Your task to perform on an android device: What's the weather today? Image 0: 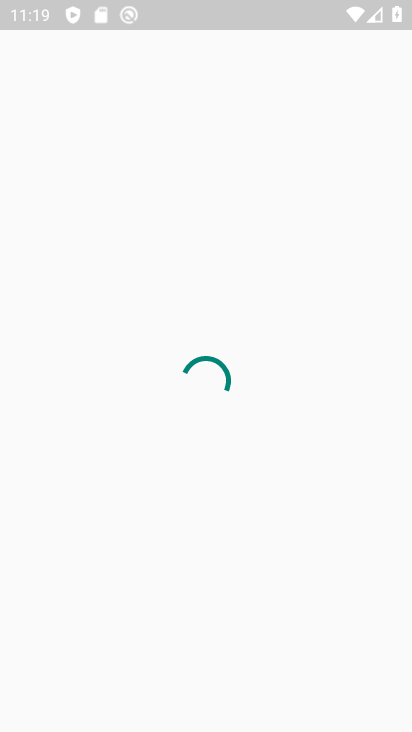
Step 0: press home button
Your task to perform on an android device: What's the weather today? Image 1: 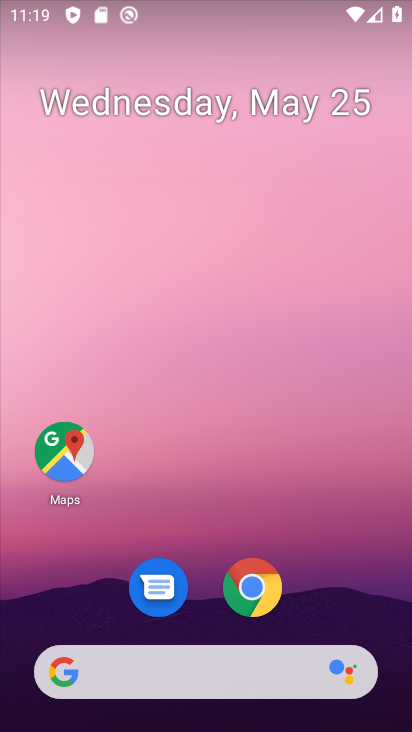
Step 1: click (237, 682)
Your task to perform on an android device: What's the weather today? Image 2: 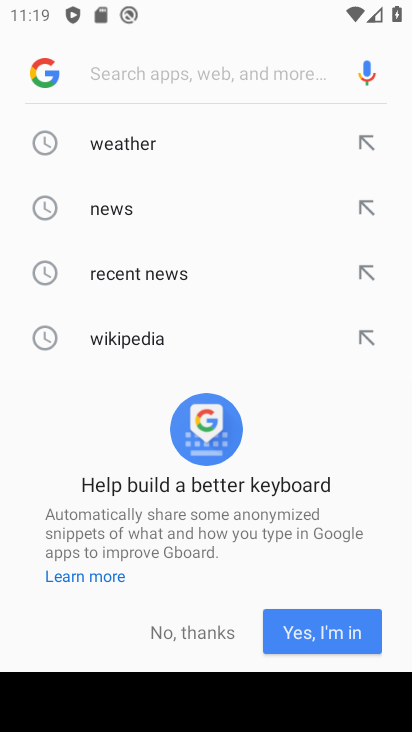
Step 2: click (192, 629)
Your task to perform on an android device: What's the weather today? Image 3: 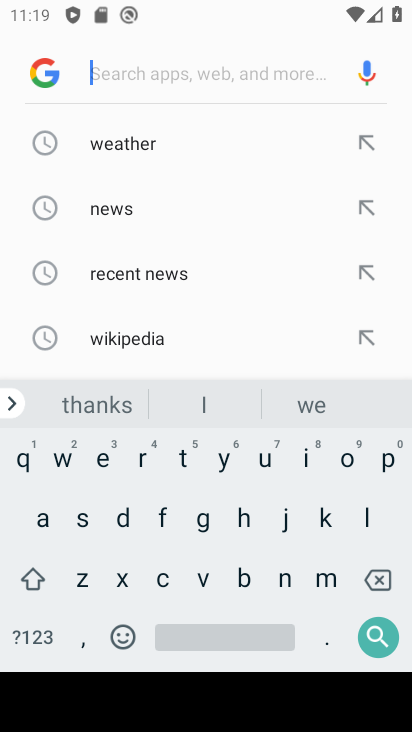
Step 3: click (99, 145)
Your task to perform on an android device: What's the weather today? Image 4: 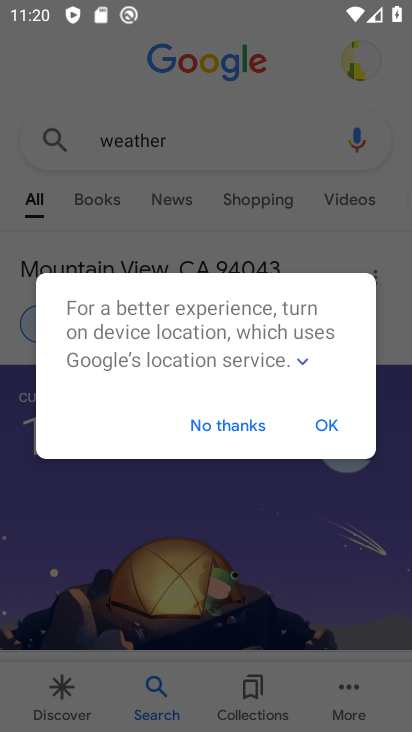
Step 4: click (324, 424)
Your task to perform on an android device: What's the weather today? Image 5: 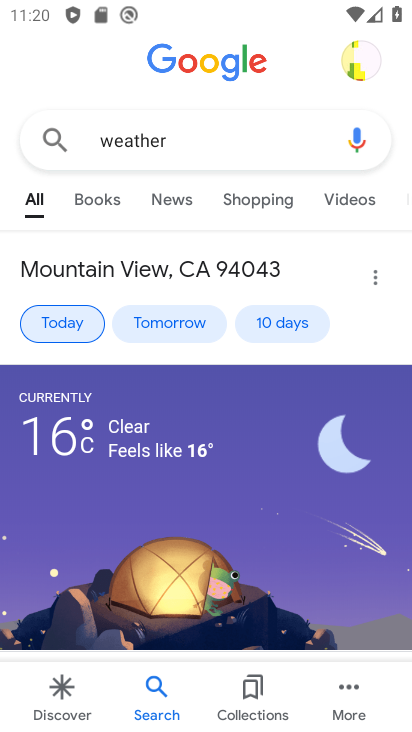
Step 5: task complete